Your task to perform on an android device: Play the last video I watched on Youtube Image 0: 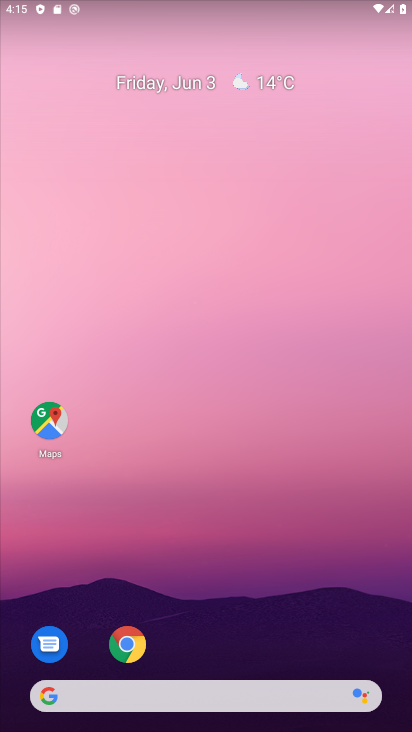
Step 0: drag from (188, 654) to (288, 151)
Your task to perform on an android device: Play the last video I watched on Youtube Image 1: 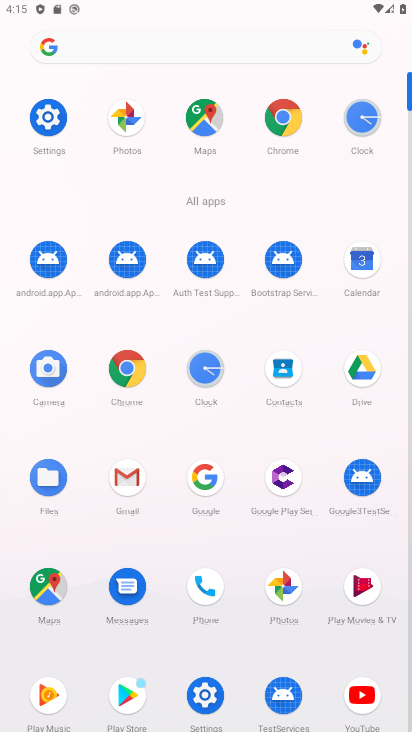
Step 1: click (362, 708)
Your task to perform on an android device: Play the last video I watched on Youtube Image 2: 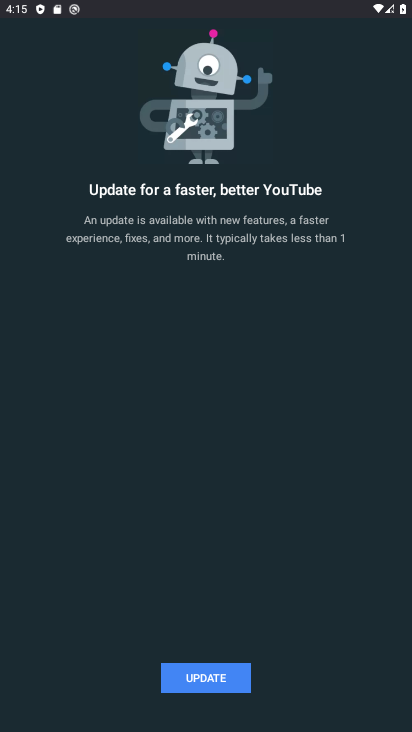
Step 2: click (192, 669)
Your task to perform on an android device: Play the last video I watched on Youtube Image 3: 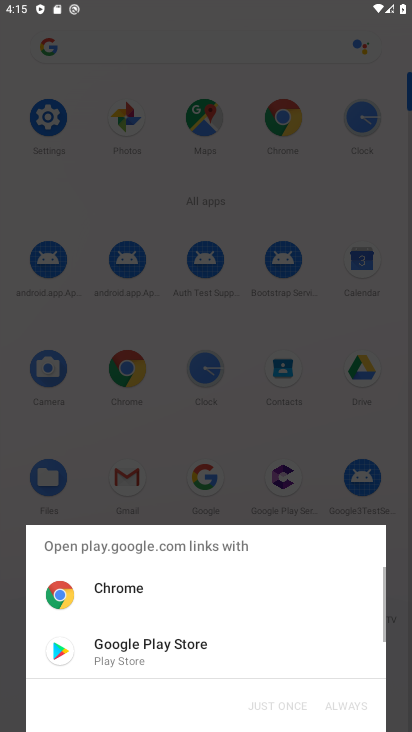
Step 3: click (192, 671)
Your task to perform on an android device: Play the last video I watched on Youtube Image 4: 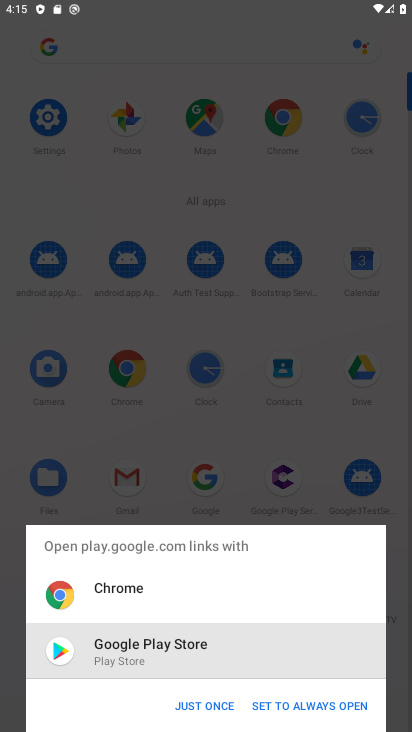
Step 4: click (198, 697)
Your task to perform on an android device: Play the last video I watched on Youtube Image 5: 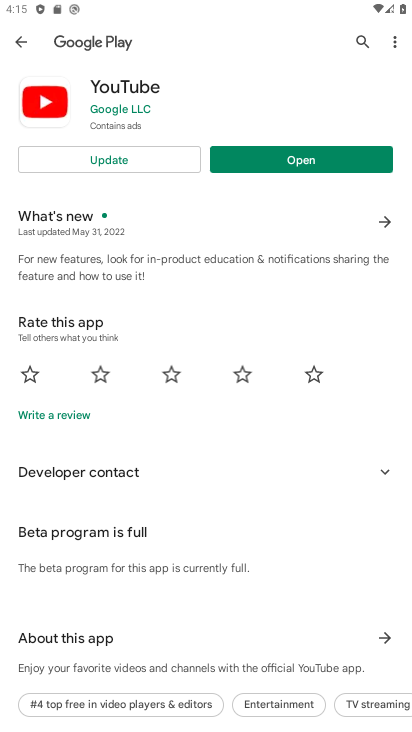
Step 5: click (168, 162)
Your task to perform on an android device: Play the last video I watched on Youtube Image 6: 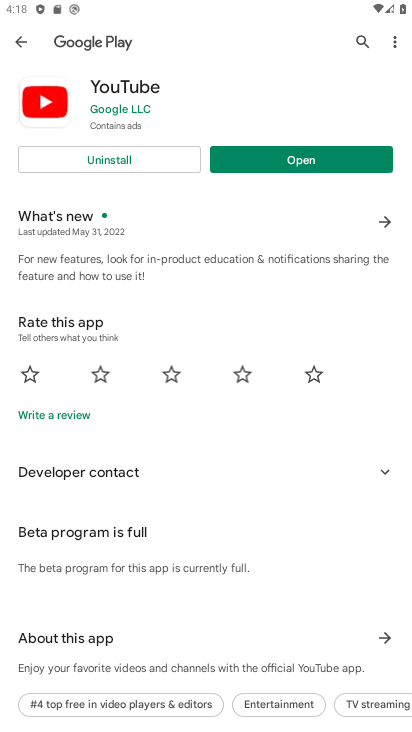
Step 6: click (300, 153)
Your task to perform on an android device: Play the last video I watched on Youtube Image 7: 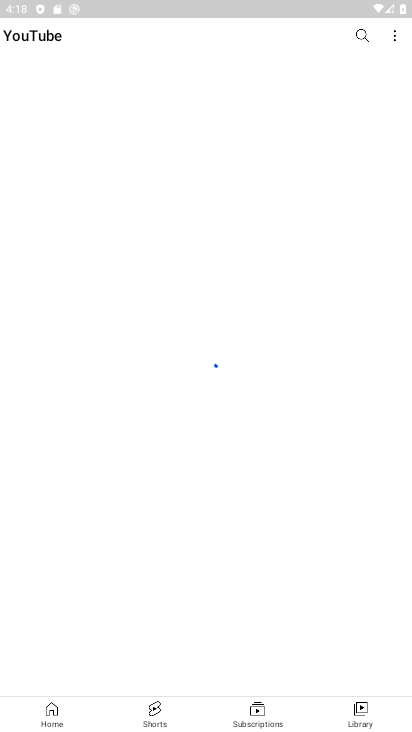
Step 7: click (357, 724)
Your task to perform on an android device: Play the last video I watched on Youtube Image 8: 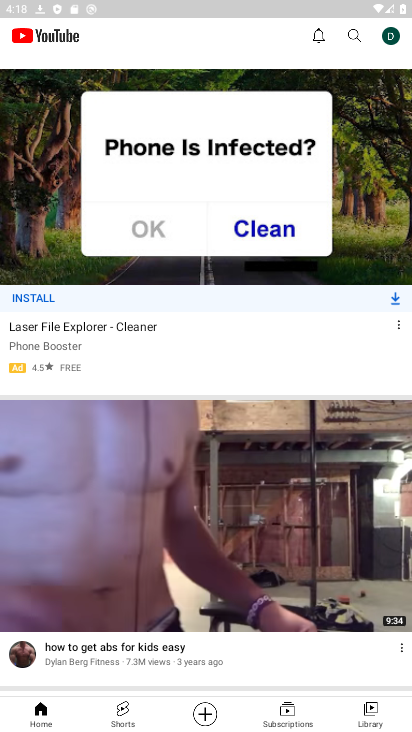
Step 8: click (330, 724)
Your task to perform on an android device: Play the last video I watched on Youtube Image 9: 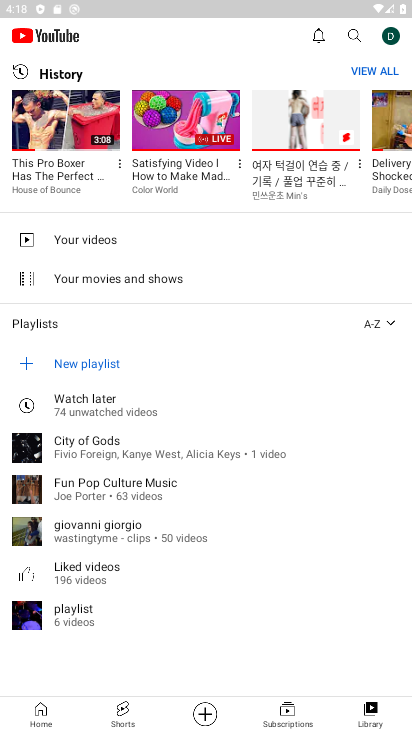
Step 9: click (68, 115)
Your task to perform on an android device: Play the last video I watched on Youtube Image 10: 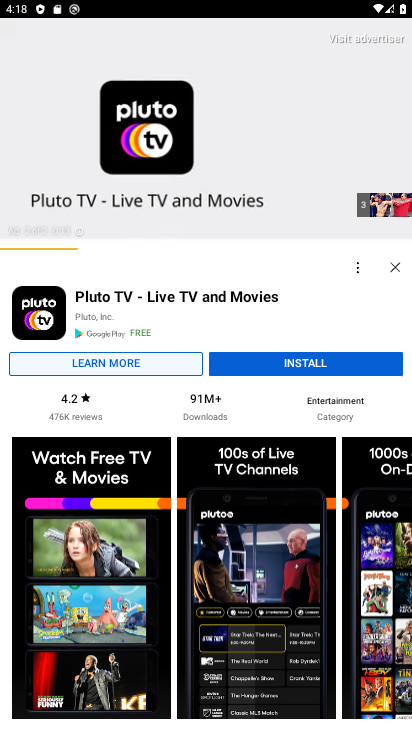
Step 10: click (395, 270)
Your task to perform on an android device: Play the last video I watched on Youtube Image 11: 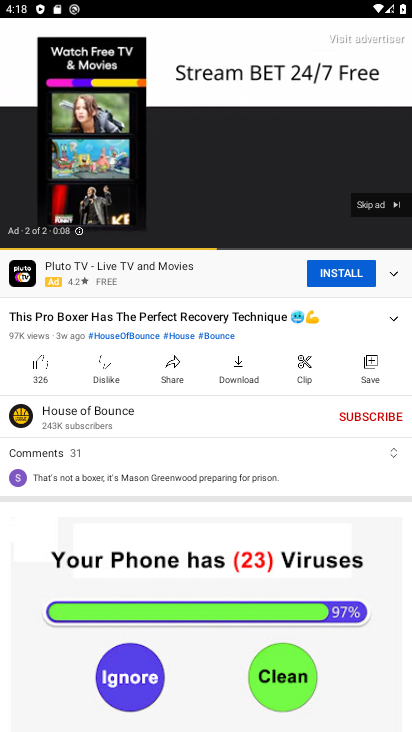
Step 11: click (369, 213)
Your task to perform on an android device: Play the last video I watched on Youtube Image 12: 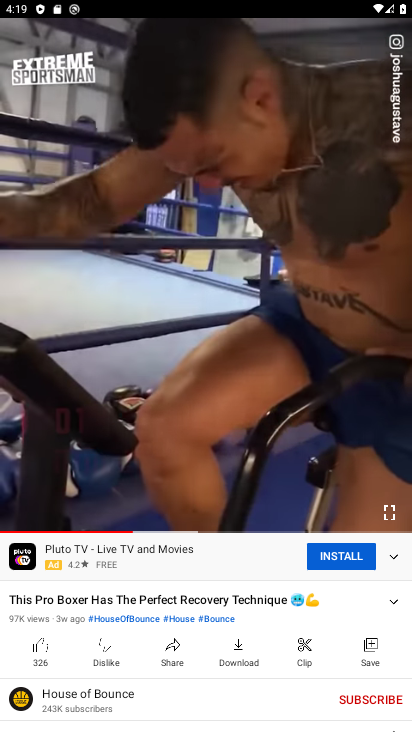
Step 12: task complete